Your task to perform on an android device: add a contact Image 0: 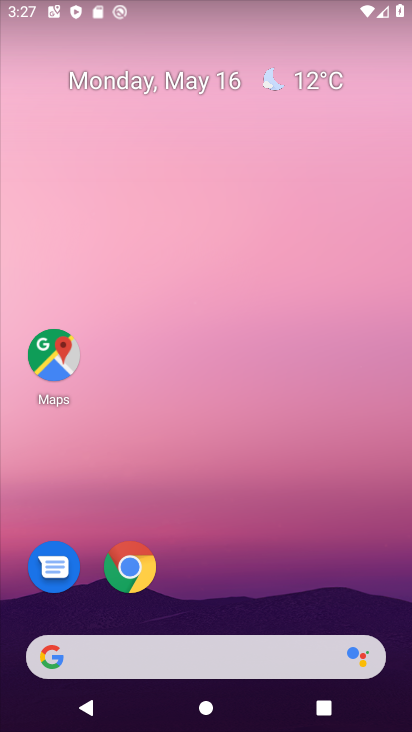
Step 0: drag from (301, 526) to (210, 34)
Your task to perform on an android device: add a contact Image 1: 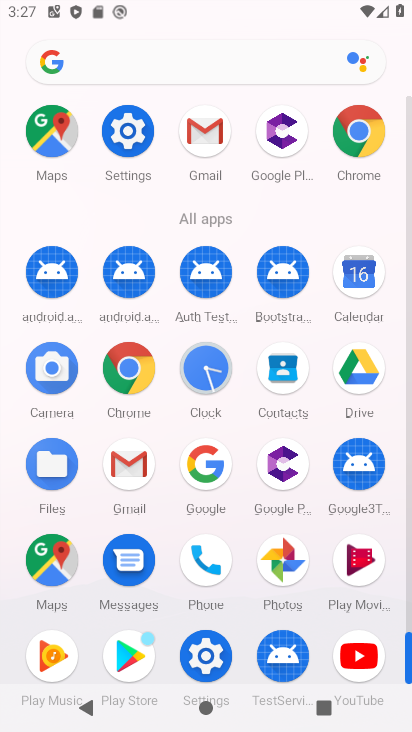
Step 1: drag from (7, 482) to (15, 197)
Your task to perform on an android device: add a contact Image 2: 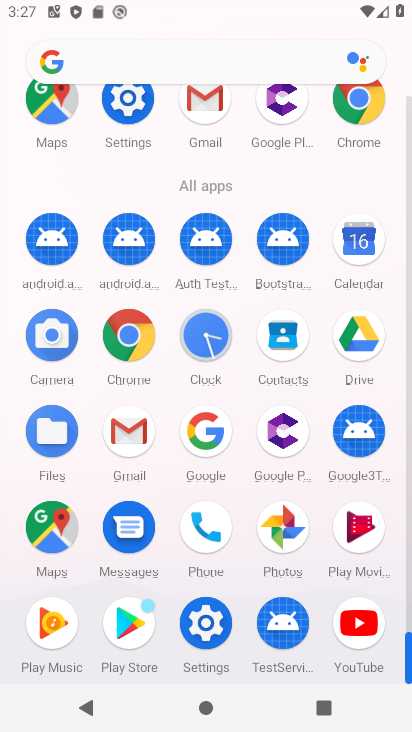
Step 2: click (282, 334)
Your task to perform on an android device: add a contact Image 3: 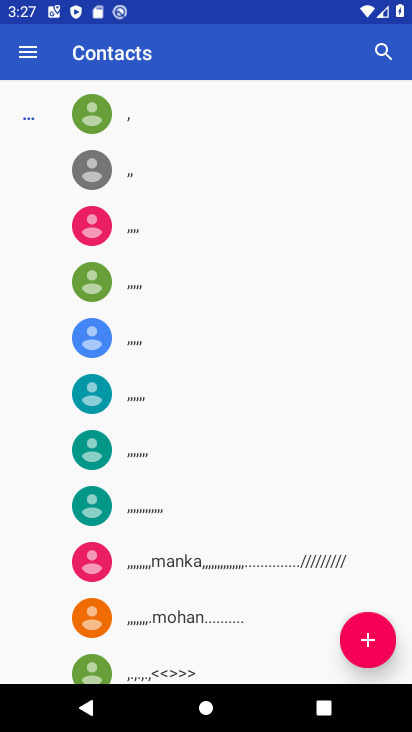
Step 3: click (367, 640)
Your task to perform on an android device: add a contact Image 4: 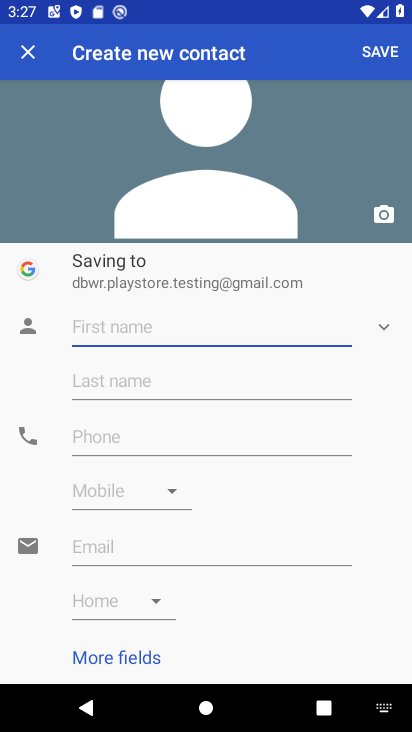
Step 4: click (138, 332)
Your task to perform on an android device: add a contact Image 5: 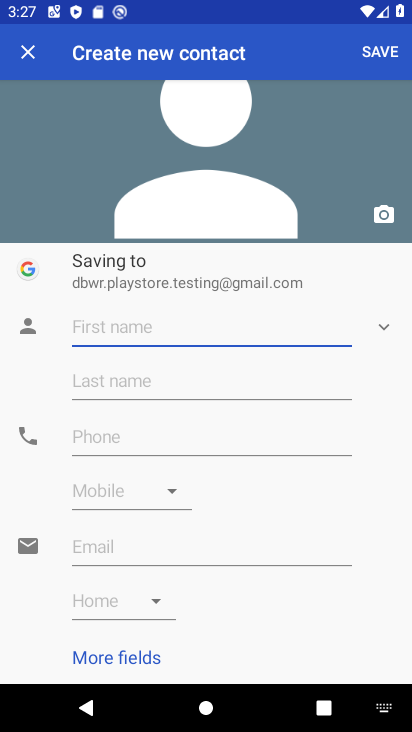
Step 5: type "DFGHJ"
Your task to perform on an android device: add a contact Image 6: 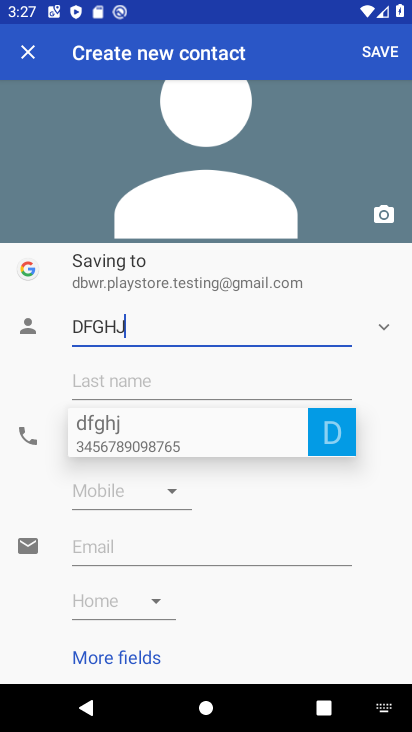
Step 6: click (117, 441)
Your task to perform on an android device: add a contact Image 7: 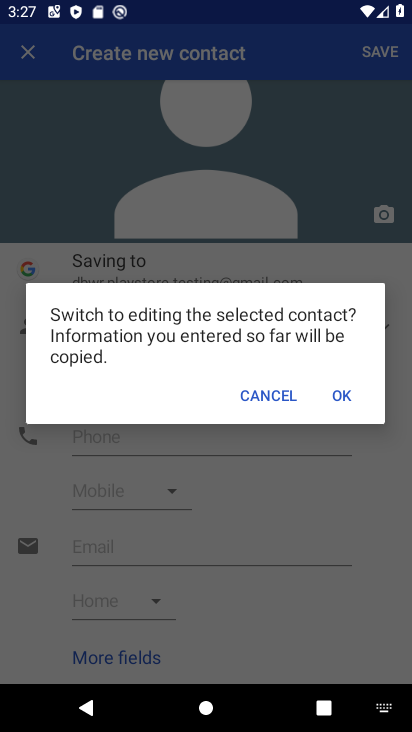
Step 7: click (336, 395)
Your task to perform on an android device: add a contact Image 8: 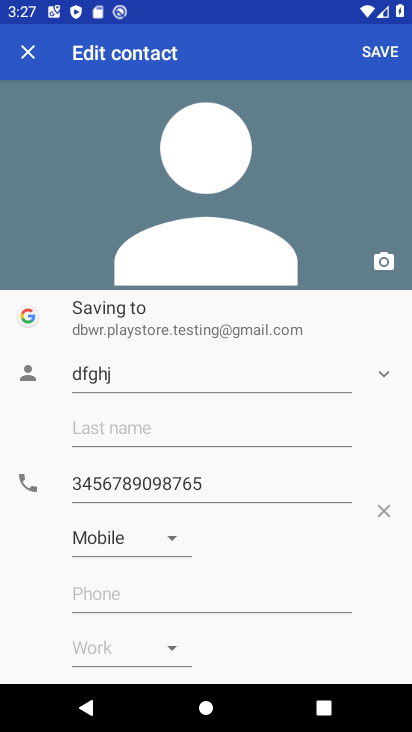
Step 8: click (388, 49)
Your task to perform on an android device: add a contact Image 9: 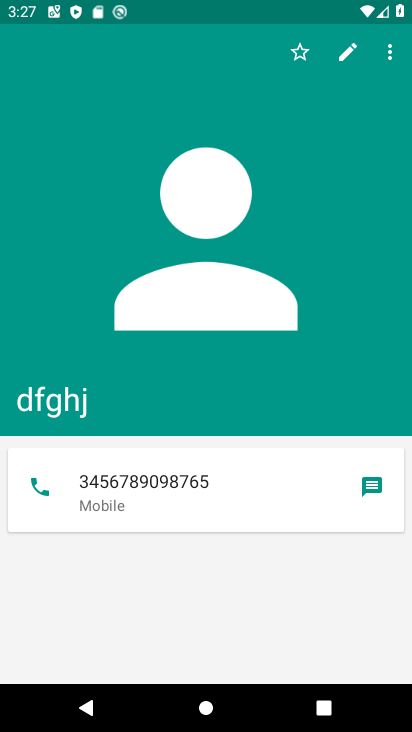
Step 9: task complete